Your task to perform on an android device: Open Yahoo.com Image 0: 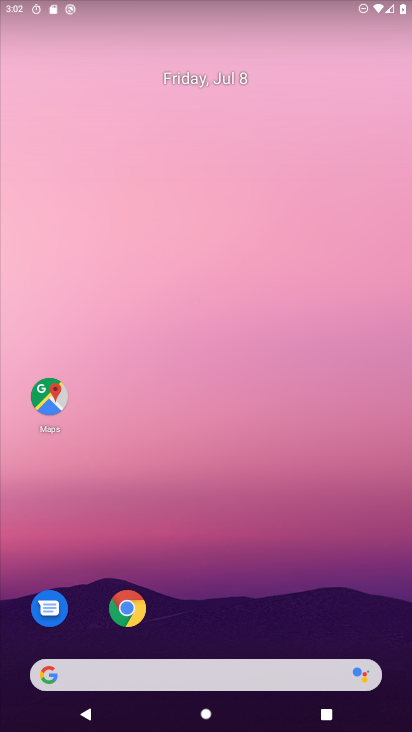
Step 0: click (127, 608)
Your task to perform on an android device: Open Yahoo.com Image 1: 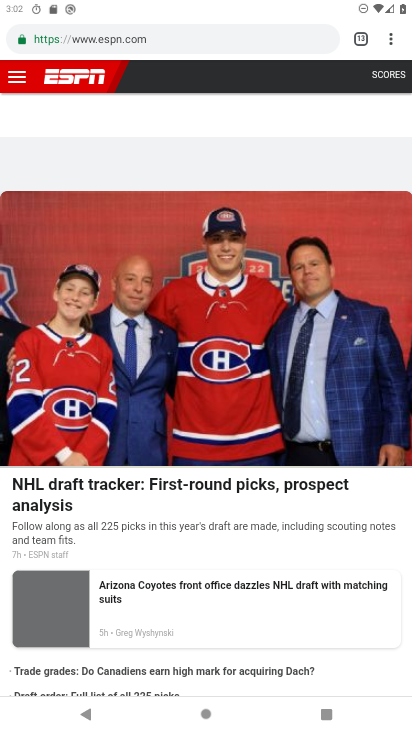
Step 1: click (389, 42)
Your task to perform on an android device: Open Yahoo.com Image 2: 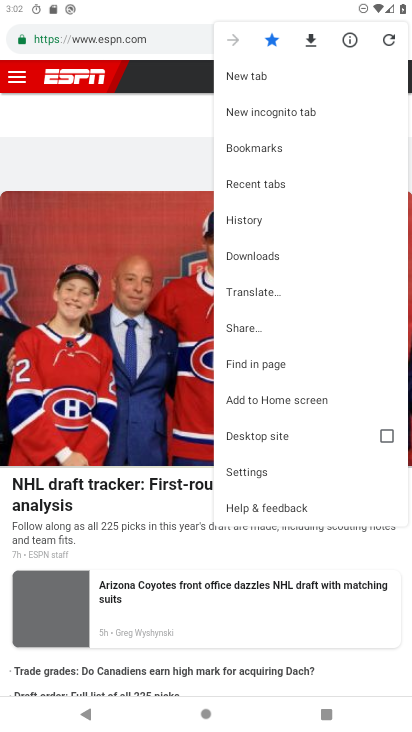
Step 2: click (236, 71)
Your task to perform on an android device: Open Yahoo.com Image 3: 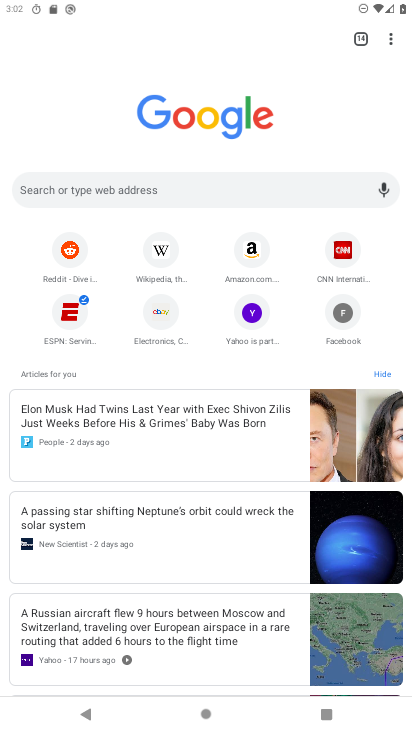
Step 3: click (250, 318)
Your task to perform on an android device: Open Yahoo.com Image 4: 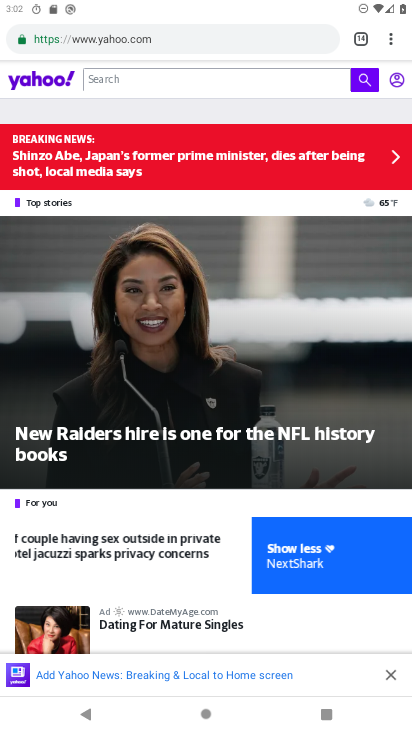
Step 4: task complete